Your task to perform on an android device: change the clock style Image 0: 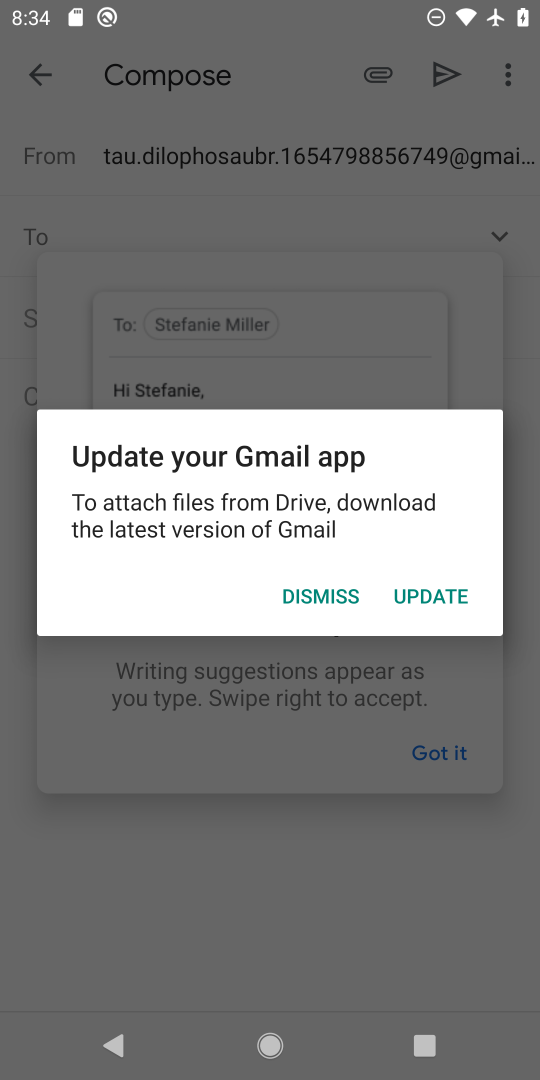
Step 0: press home button
Your task to perform on an android device: change the clock style Image 1: 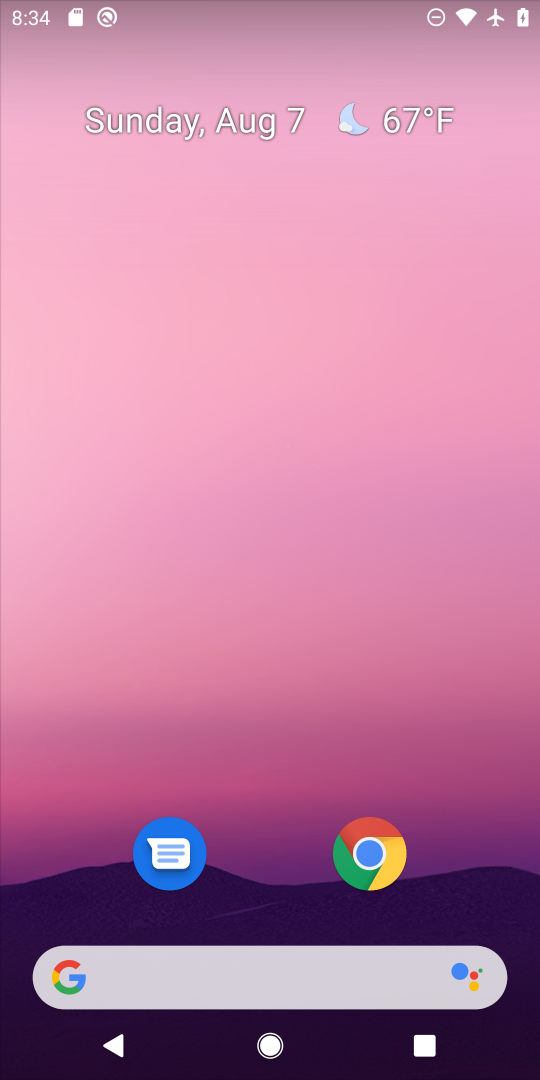
Step 1: drag from (212, 1030) to (302, 168)
Your task to perform on an android device: change the clock style Image 2: 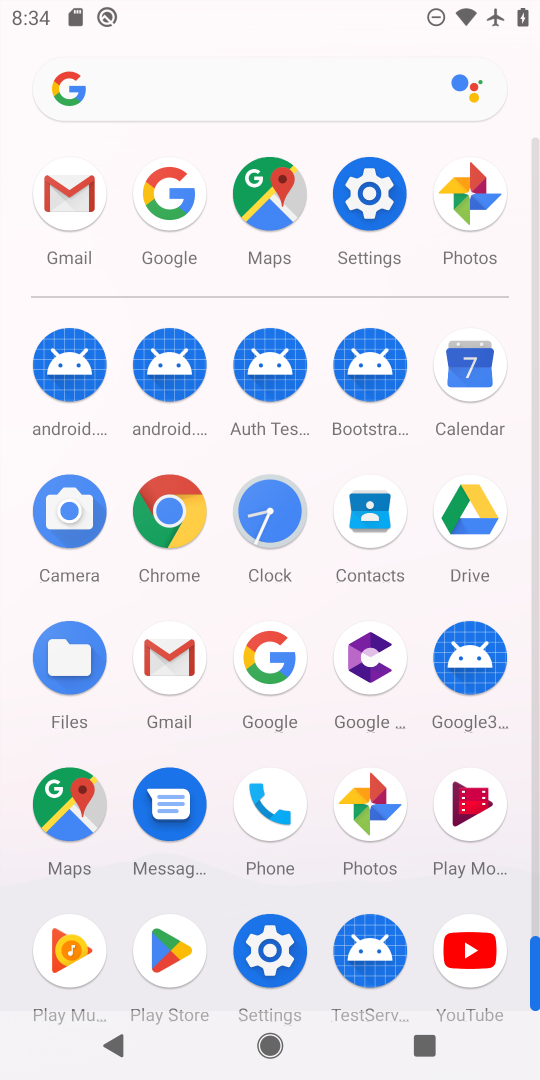
Step 2: click (261, 546)
Your task to perform on an android device: change the clock style Image 3: 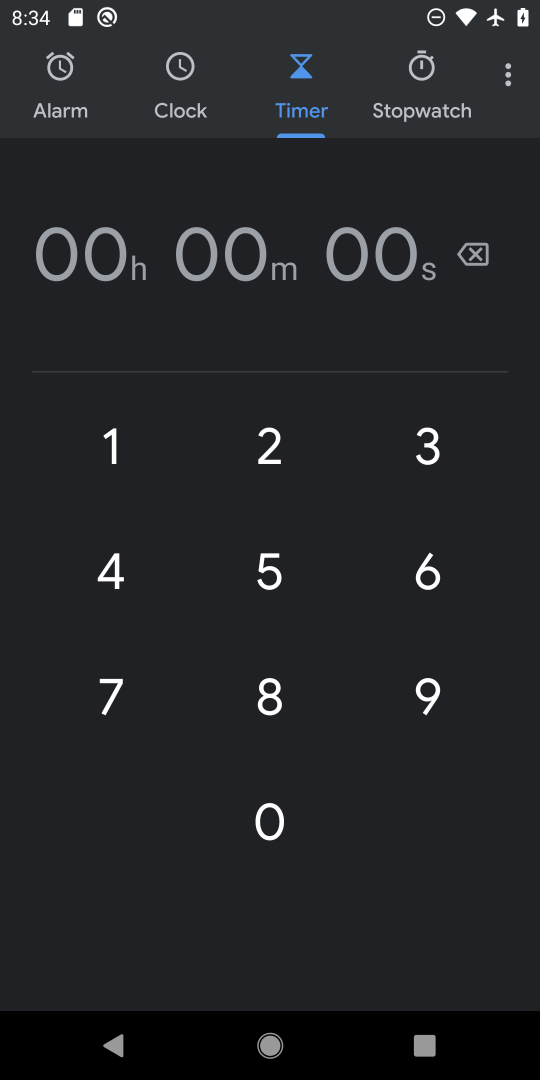
Step 3: click (500, 80)
Your task to perform on an android device: change the clock style Image 4: 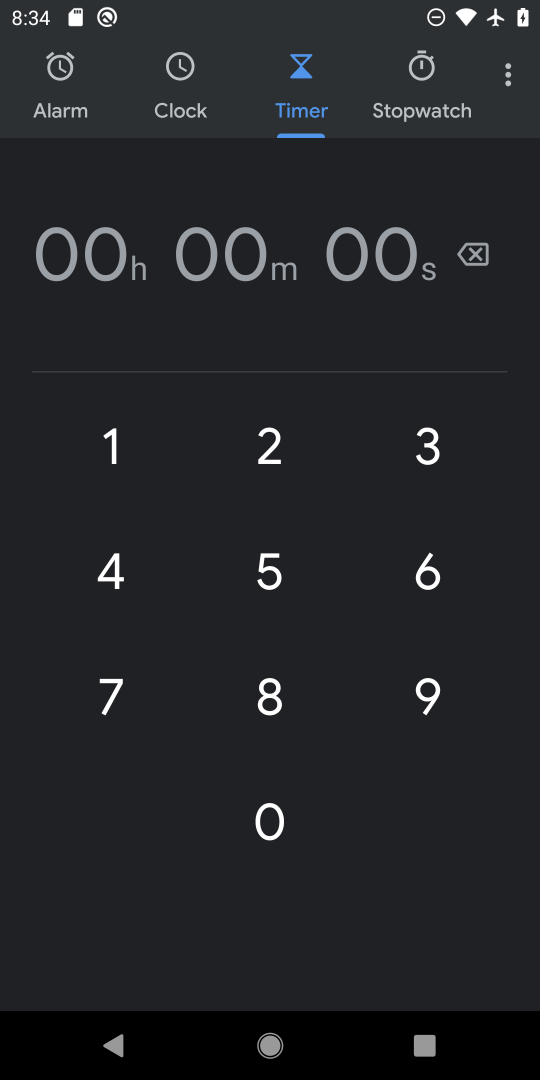
Step 4: click (505, 76)
Your task to perform on an android device: change the clock style Image 5: 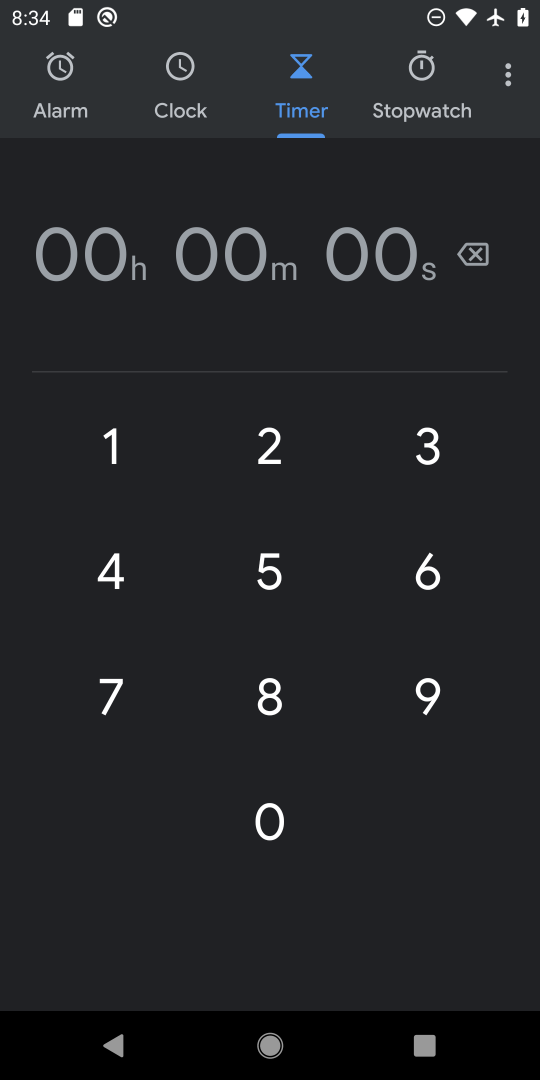
Step 5: click (508, 85)
Your task to perform on an android device: change the clock style Image 6: 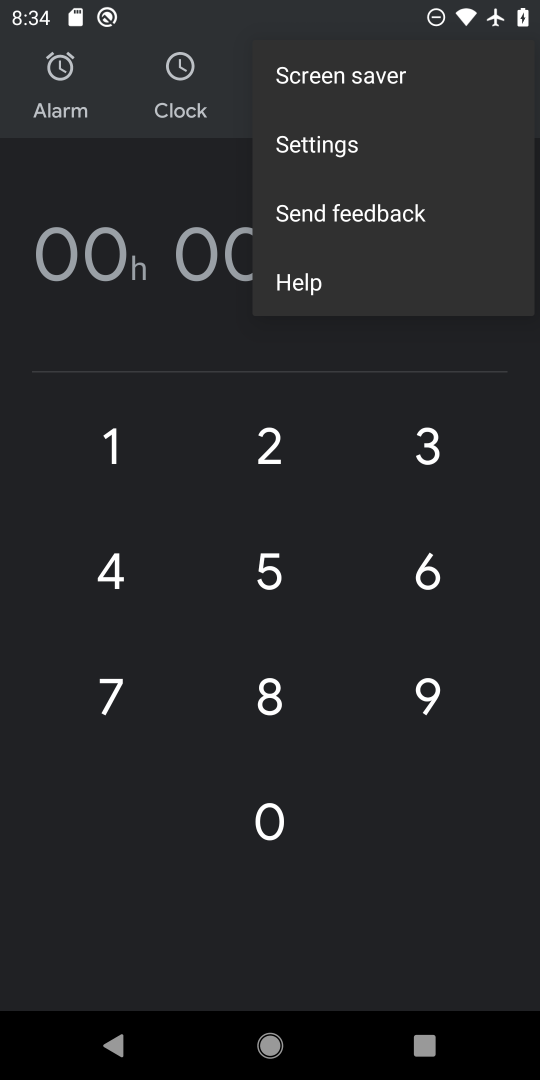
Step 6: click (372, 144)
Your task to perform on an android device: change the clock style Image 7: 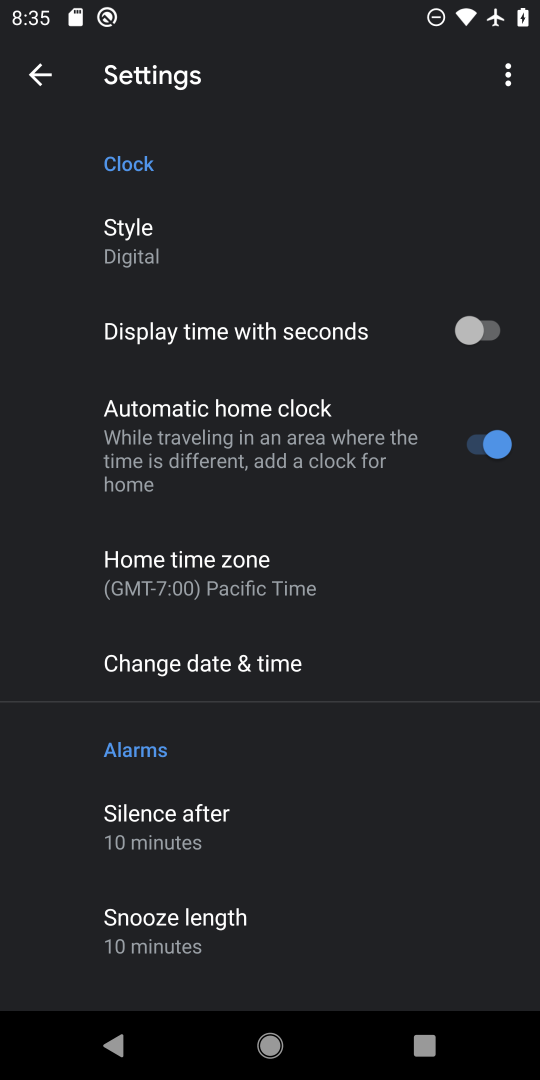
Step 7: click (202, 240)
Your task to perform on an android device: change the clock style Image 8: 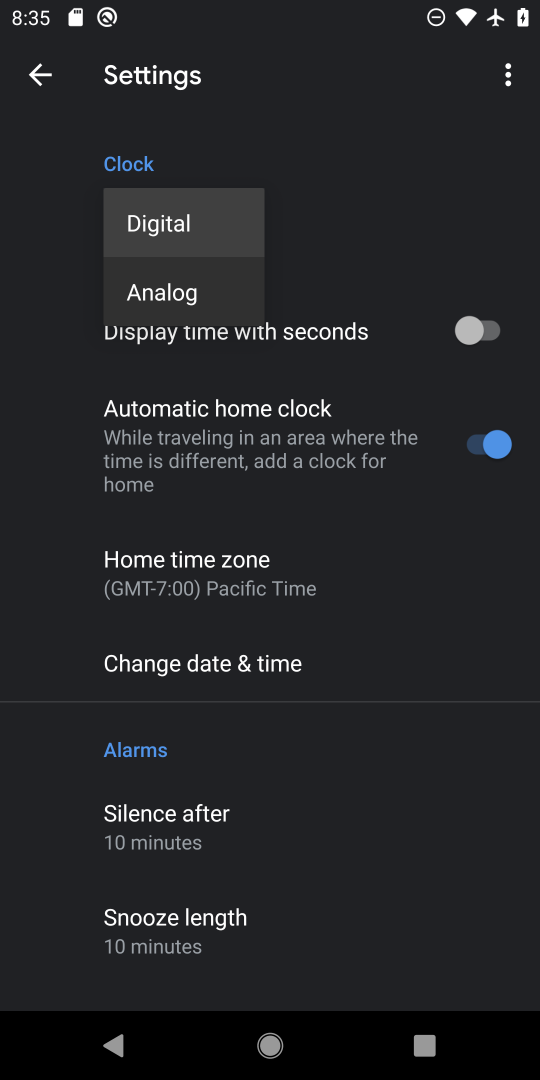
Step 8: click (178, 287)
Your task to perform on an android device: change the clock style Image 9: 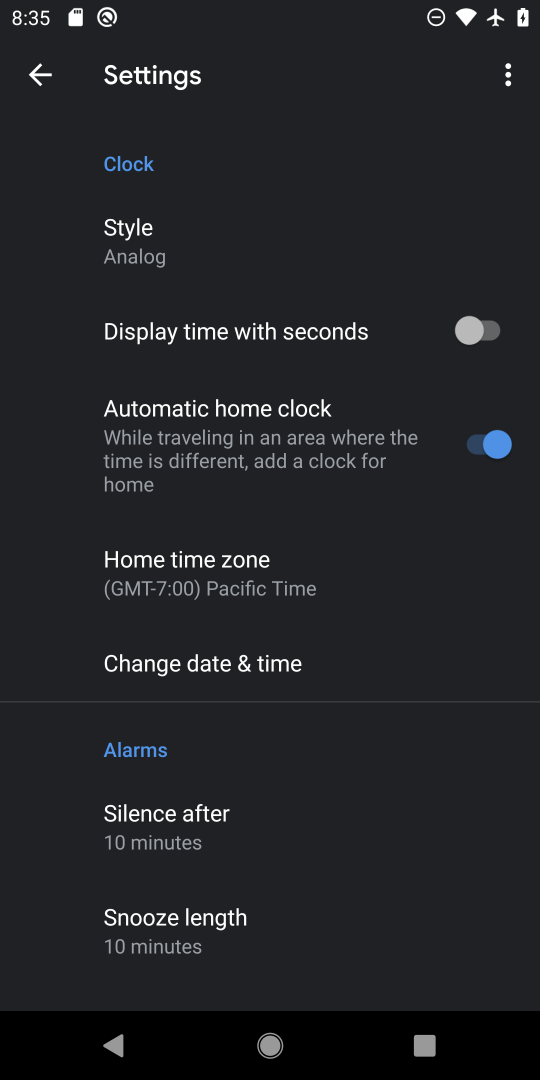
Step 9: task complete